Your task to perform on an android device: What is the recent news? Image 0: 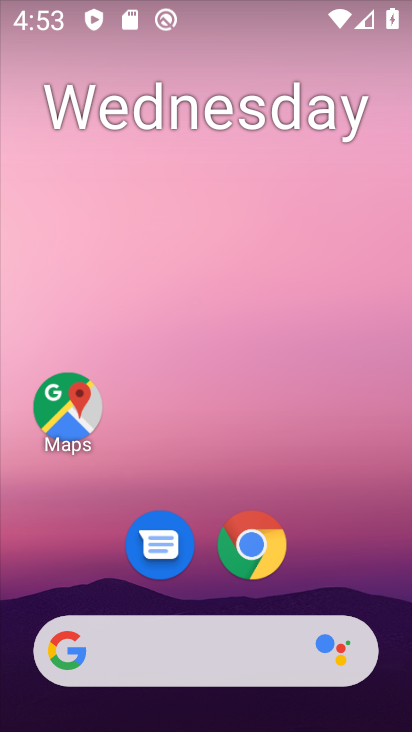
Step 0: drag from (365, 527) to (363, 186)
Your task to perform on an android device: What is the recent news? Image 1: 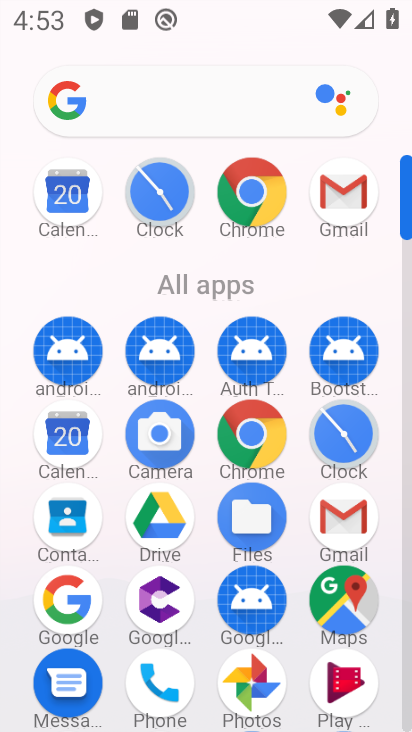
Step 1: click (235, 422)
Your task to perform on an android device: What is the recent news? Image 2: 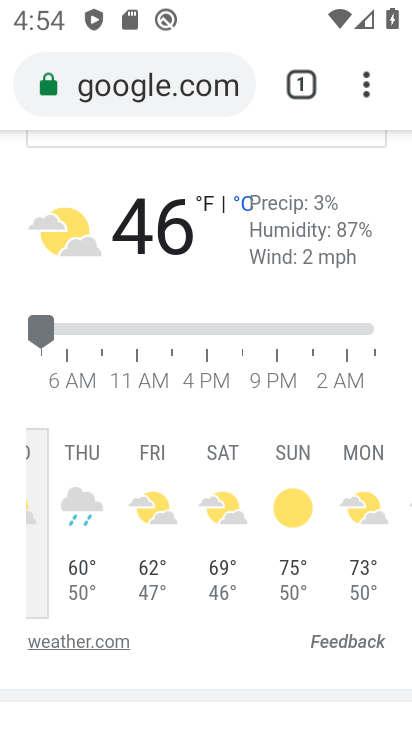
Step 2: click (169, 81)
Your task to perform on an android device: What is the recent news? Image 3: 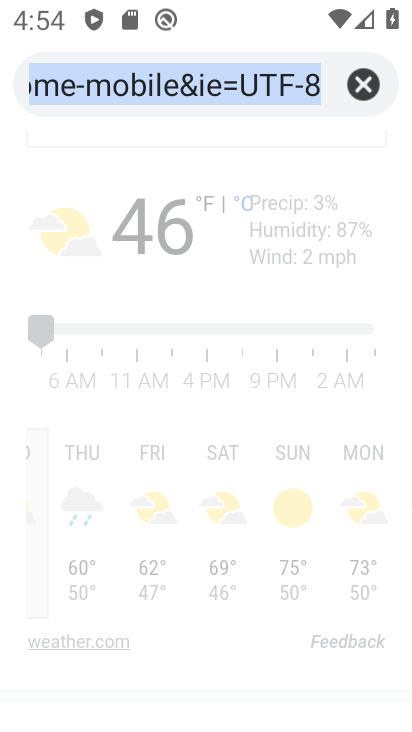
Step 3: click (169, 81)
Your task to perform on an android device: What is the recent news? Image 4: 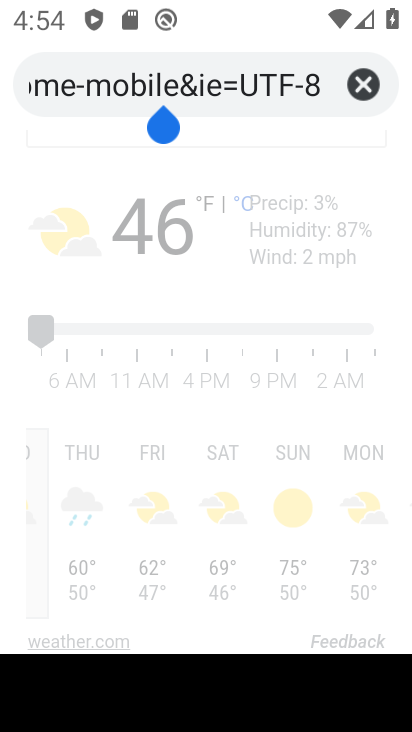
Step 4: click (192, 86)
Your task to perform on an android device: What is the recent news? Image 5: 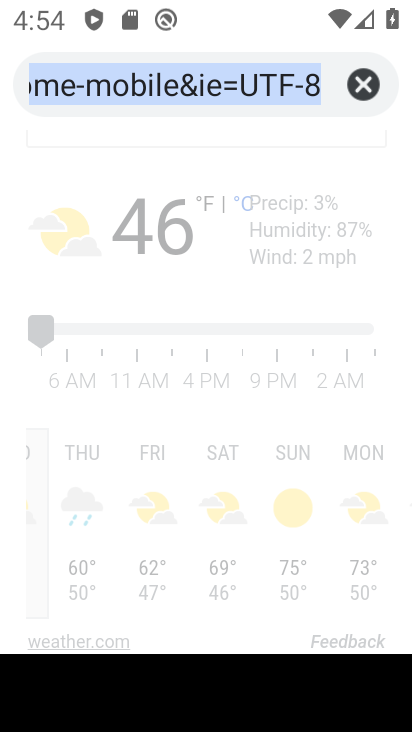
Step 5: click (192, 86)
Your task to perform on an android device: What is the recent news? Image 6: 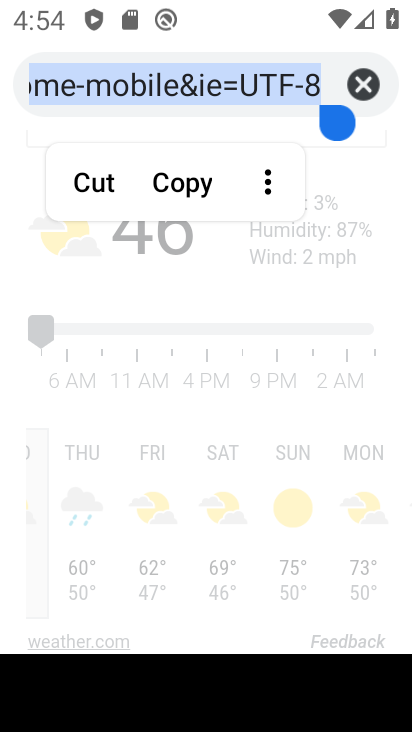
Step 6: type "news"
Your task to perform on an android device: What is the recent news? Image 7: 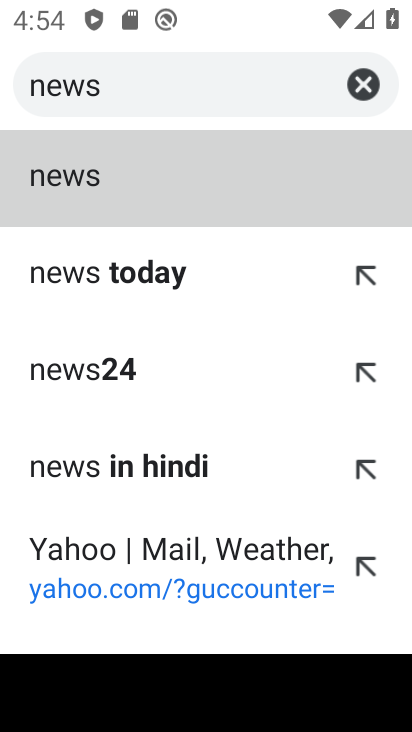
Step 7: click (173, 182)
Your task to perform on an android device: What is the recent news? Image 8: 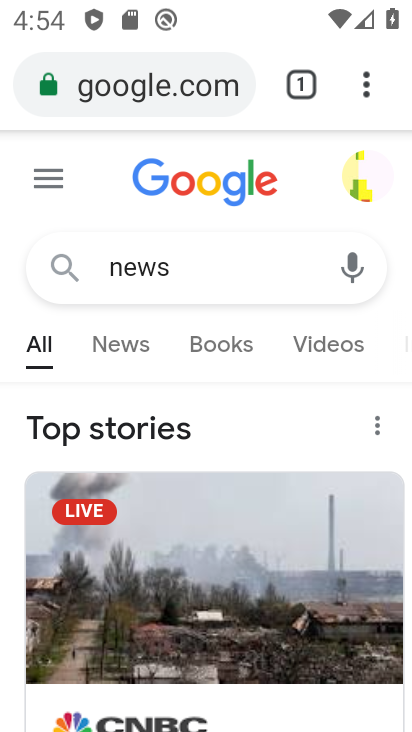
Step 8: click (131, 346)
Your task to perform on an android device: What is the recent news? Image 9: 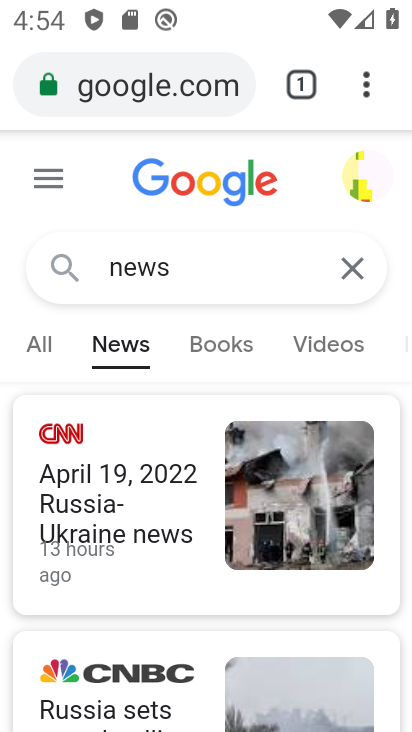
Step 9: task complete